Your task to perform on an android device: What's the weather today? Image 0: 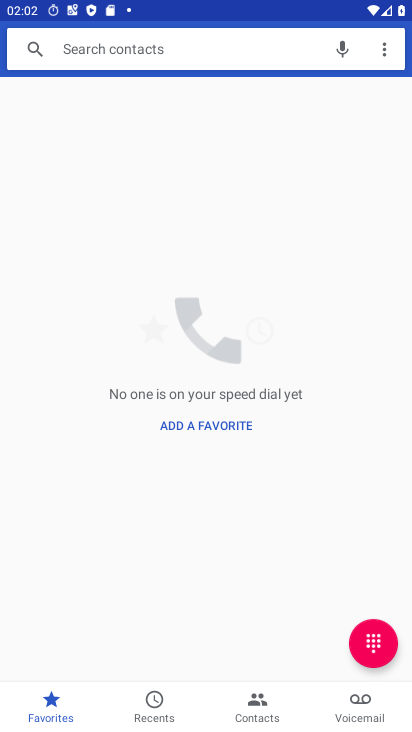
Step 0: press home button
Your task to perform on an android device: What's the weather today? Image 1: 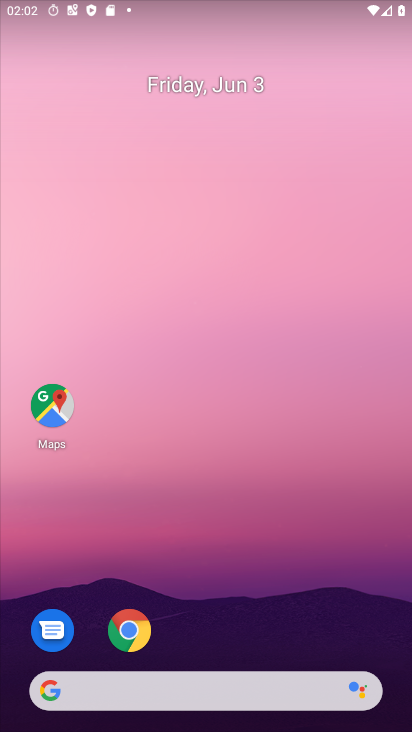
Step 1: drag from (246, 642) to (190, 228)
Your task to perform on an android device: What's the weather today? Image 2: 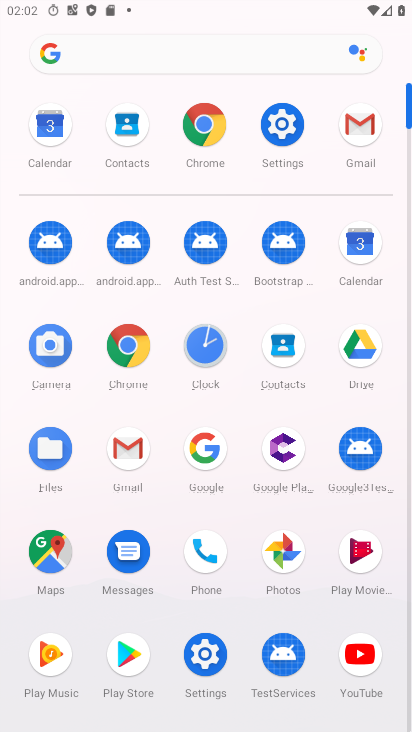
Step 2: click (201, 47)
Your task to perform on an android device: What's the weather today? Image 3: 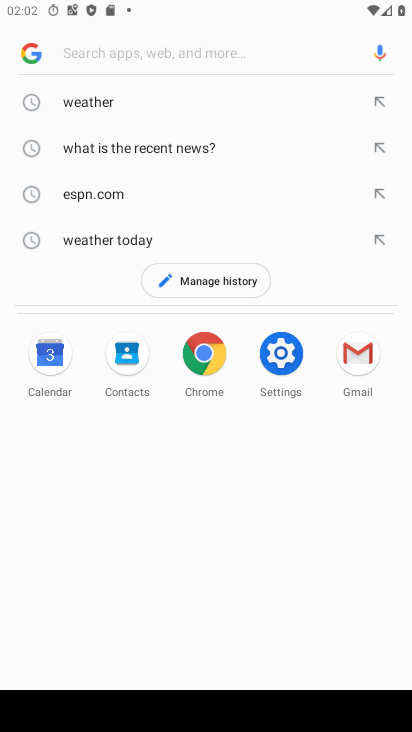
Step 3: click (105, 243)
Your task to perform on an android device: What's the weather today? Image 4: 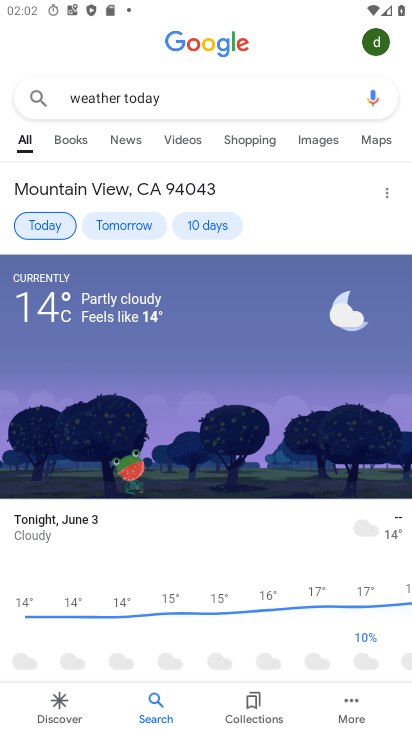
Step 4: task complete